Your task to perform on an android device: Add "logitech g502" to the cart on costco, then select checkout. Image 0: 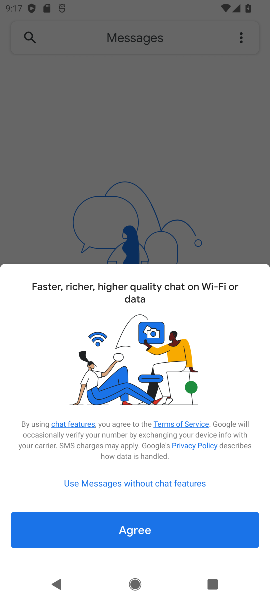
Step 0: press home button
Your task to perform on an android device: Add "logitech g502" to the cart on costco, then select checkout. Image 1: 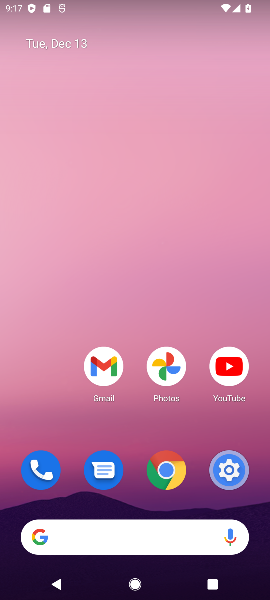
Step 1: click (60, 534)
Your task to perform on an android device: Add "logitech g502" to the cart on costco, then select checkout. Image 2: 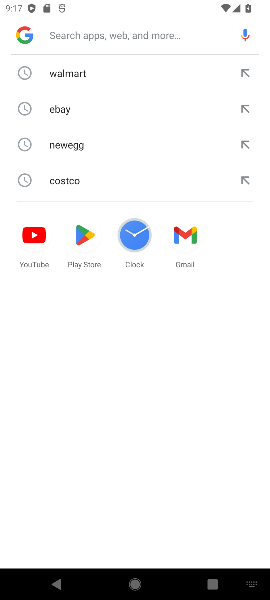
Step 2: type "costco"
Your task to perform on an android device: Add "logitech g502" to the cart on costco, then select checkout. Image 3: 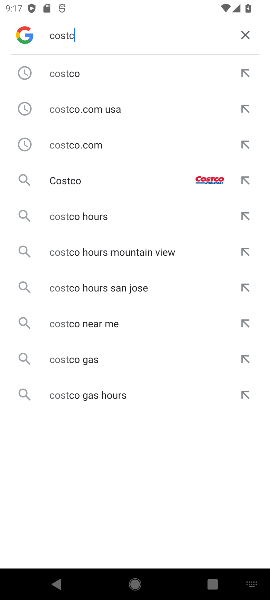
Step 3: press enter
Your task to perform on an android device: Add "logitech g502" to the cart on costco, then select checkout. Image 4: 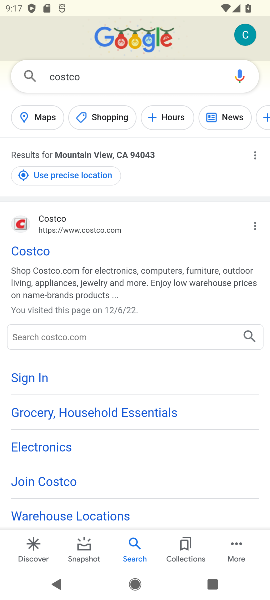
Step 4: click (13, 254)
Your task to perform on an android device: Add "logitech g502" to the cart on costco, then select checkout. Image 5: 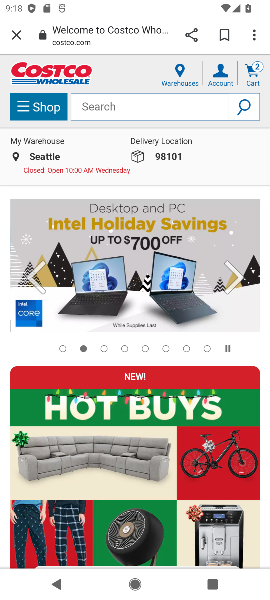
Step 5: click (111, 98)
Your task to perform on an android device: Add "logitech g502" to the cart on costco, then select checkout. Image 6: 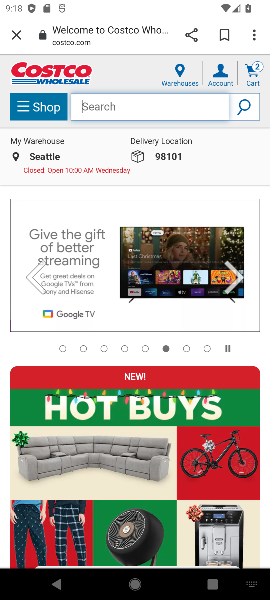
Step 6: press enter
Your task to perform on an android device: Add "logitech g502" to the cart on costco, then select checkout. Image 7: 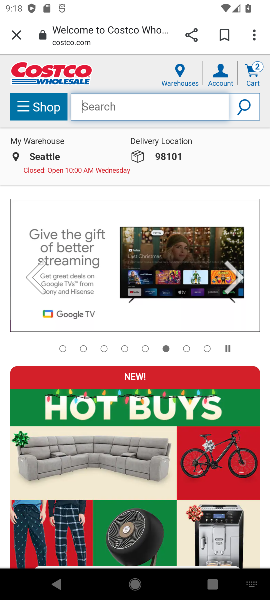
Step 7: type "logitech g502"
Your task to perform on an android device: Add "logitech g502" to the cart on costco, then select checkout. Image 8: 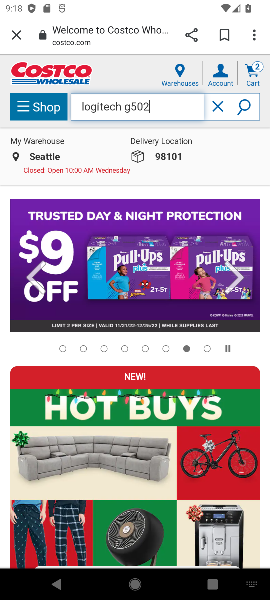
Step 8: click (246, 104)
Your task to perform on an android device: Add "logitech g502" to the cart on costco, then select checkout. Image 9: 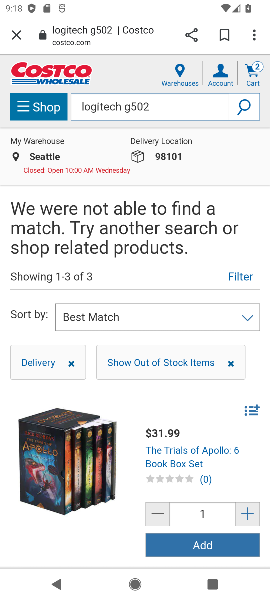
Step 9: task complete